Your task to perform on an android device: clear history in the chrome app Image 0: 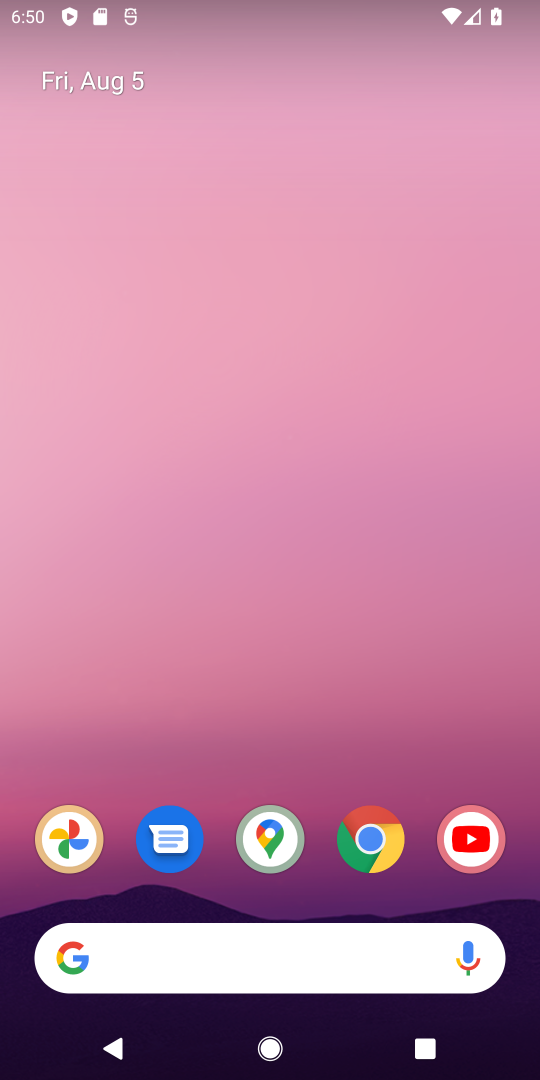
Step 0: click (366, 837)
Your task to perform on an android device: clear history in the chrome app Image 1: 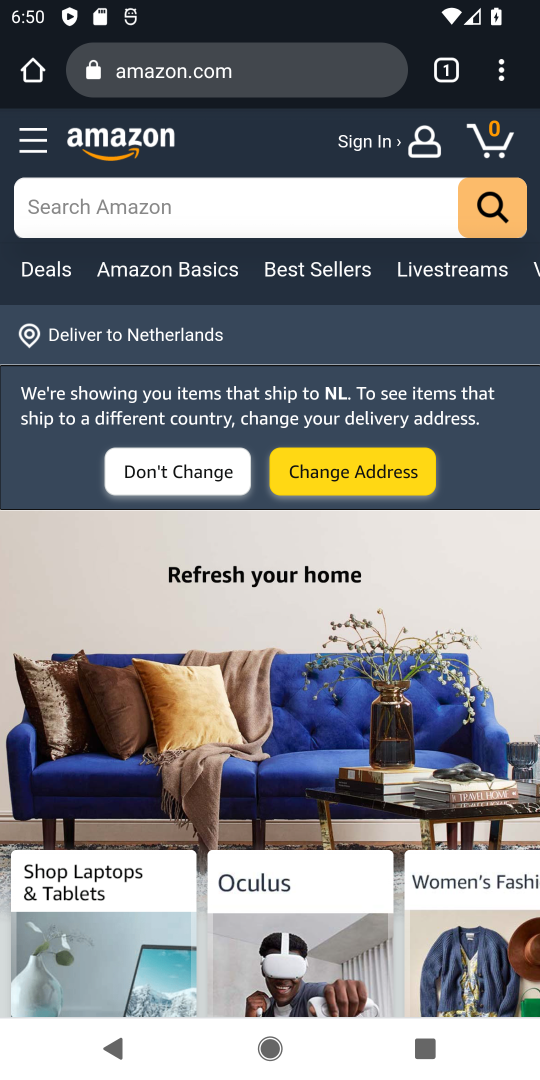
Step 1: click (500, 78)
Your task to perform on an android device: clear history in the chrome app Image 2: 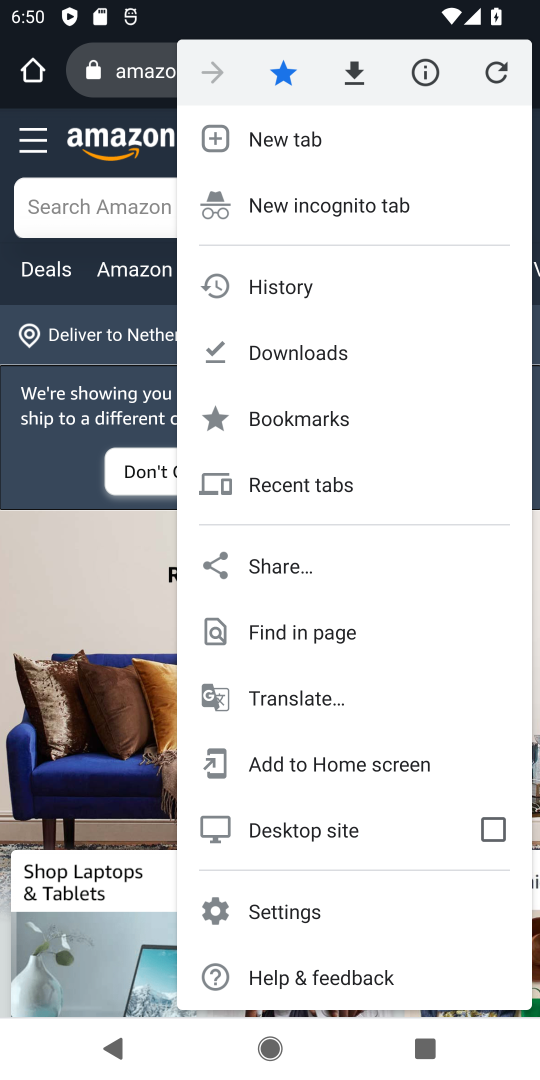
Step 2: click (279, 287)
Your task to perform on an android device: clear history in the chrome app Image 3: 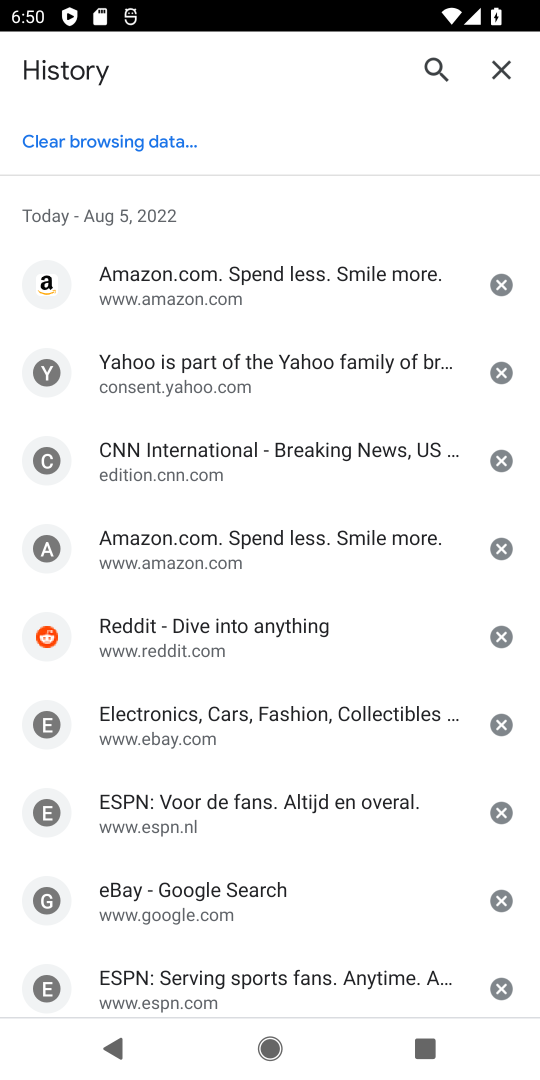
Step 3: click (106, 135)
Your task to perform on an android device: clear history in the chrome app Image 4: 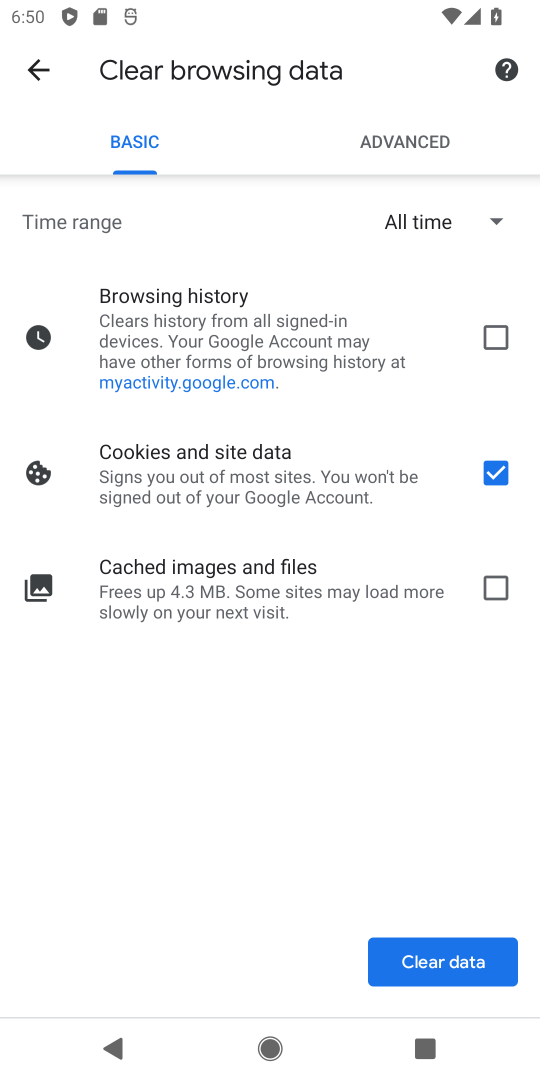
Step 4: click (492, 347)
Your task to perform on an android device: clear history in the chrome app Image 5: 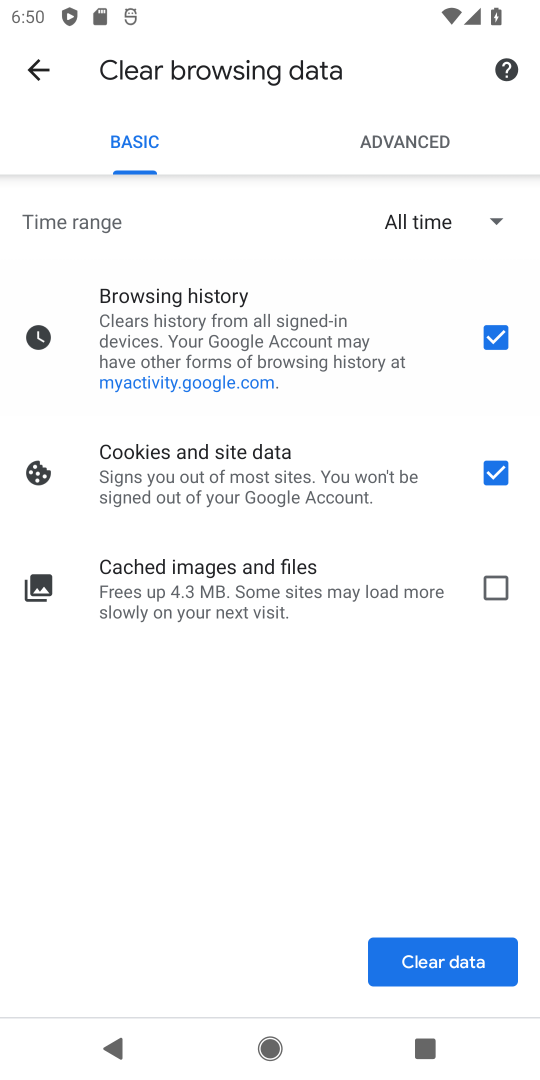
Step 5: click (499, 480)
Your task to perform on an android device: clear history in the chrome app Image 6: 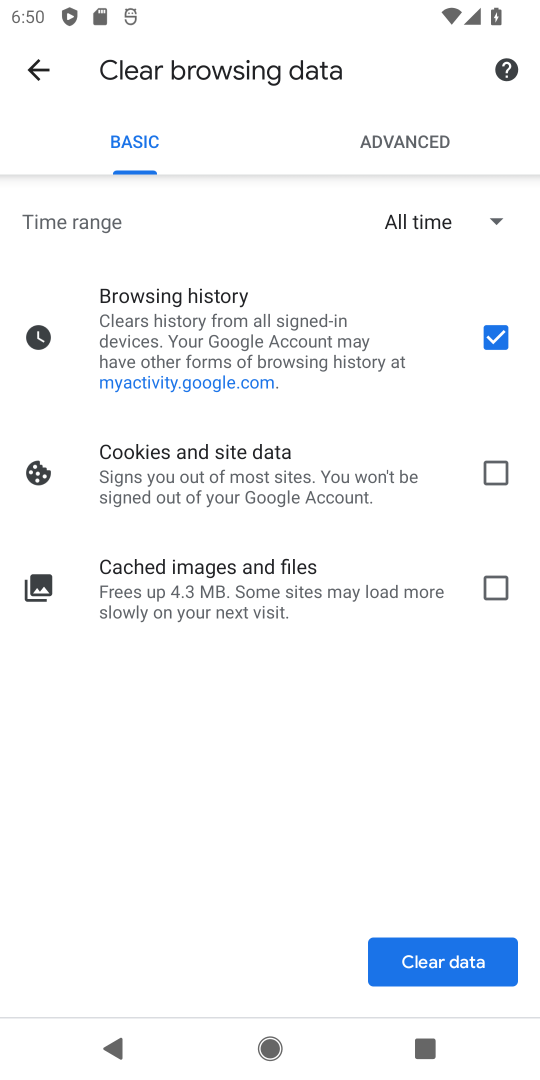
Step 6: click (445, 958)
Your task to perform on an android device: clear history in the chrome app Image 7: 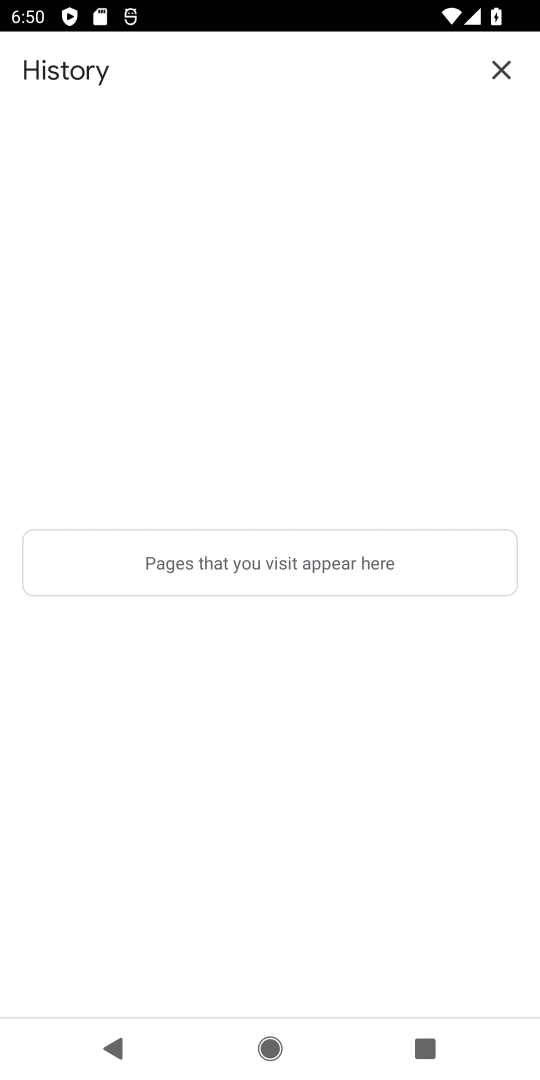
Step 7: task complete